Your task to perform on an android device: turn off improve location accuracy Image 0: 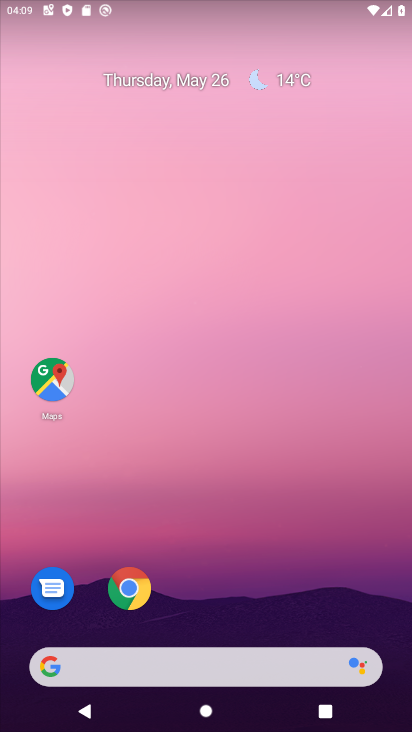
Step 0: drag from (305, 611) to (331, 157)
Your task to perform on an android device: turn off improve location accuracy Image 1: 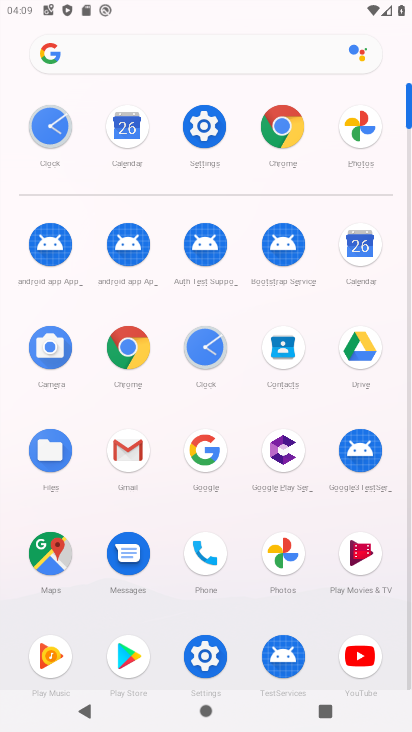
Step 1: click (210, 136)
Your task to perform on an android device: turn off improve location accuracy Image 2: 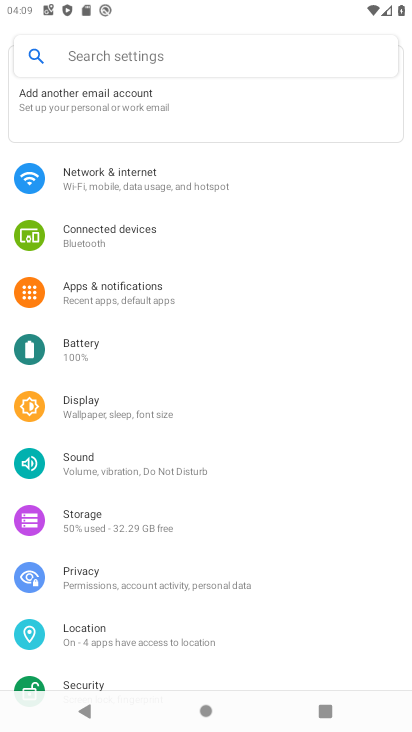
Step 2: click (127, 623)
Your task to perform on an android device: turn off improve location accuracy Image 3: 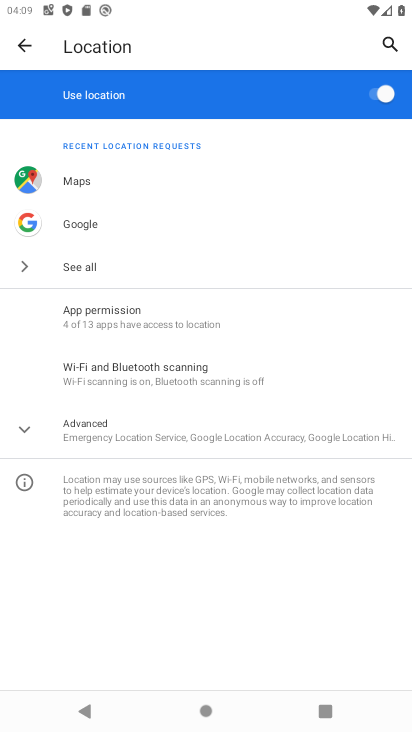
Step 3: click (104, 415)
Your task to perform on an android device: turn off improve location accuracy Image 4: 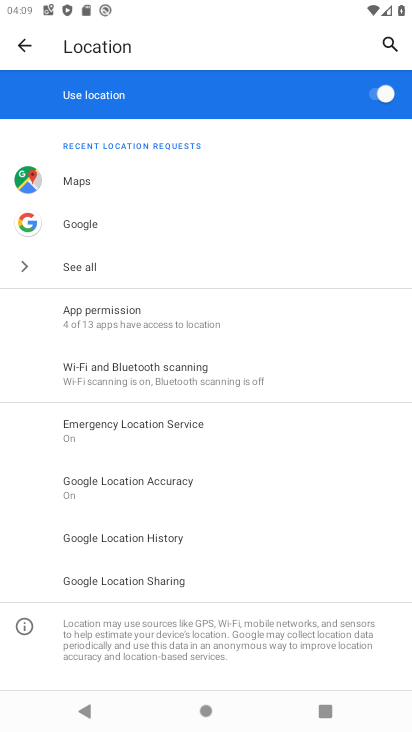
Step 4: task complete